Your task to perform on an android device: turn vacation reply on in the gmail app Image 0: 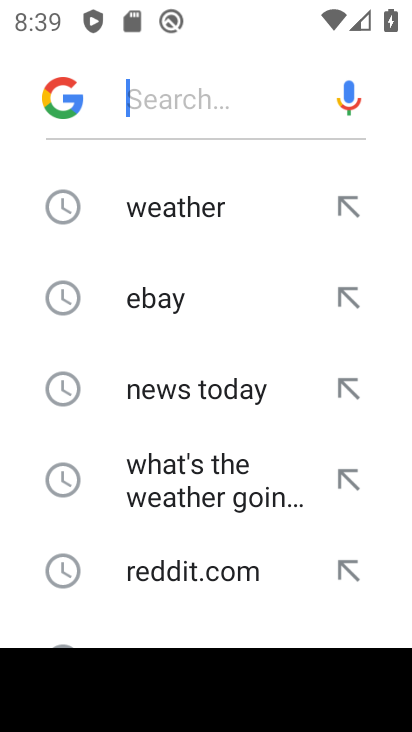
Step 0: press home button
Your task to perform on an android device: turn vacation reply on in the gmail app Image 1: 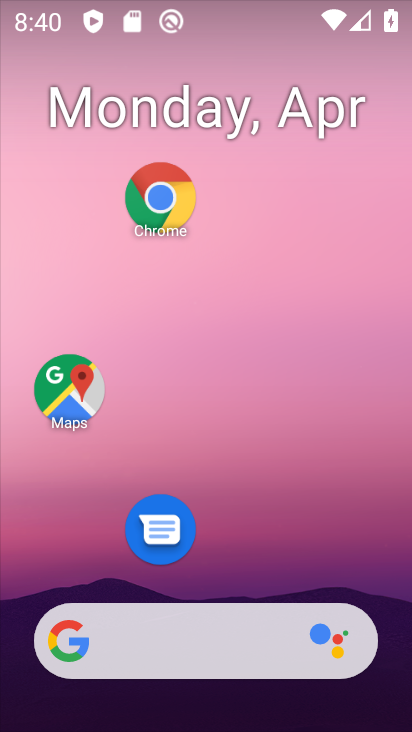
Step 1: drag from (209, 426) to (250, 130)
Your task to perform on an android device: turn vacation reply on in the gmail app Image 2: 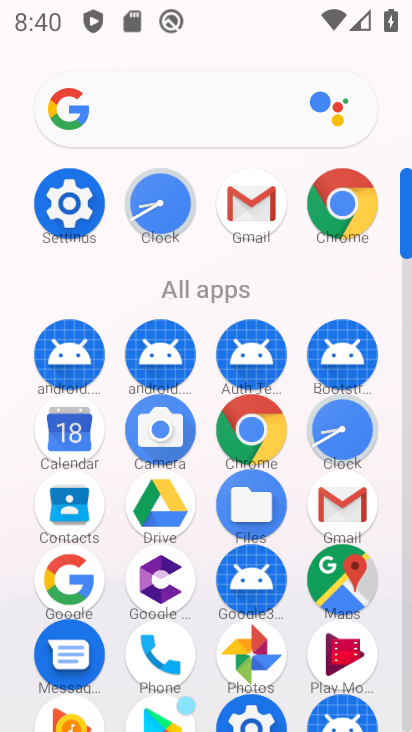
Step 2: click (252, 192)
Your task to perform on an android device: turn vacation reply on in the gmail app Image 3: 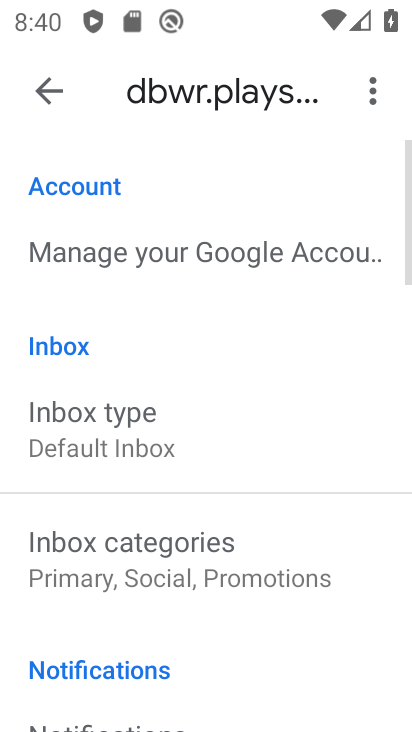
Step 3: drag from (157, 629) to (251, 91)
Your task to perform on an android device: turn vacation reply on in the gmail app Image 4: 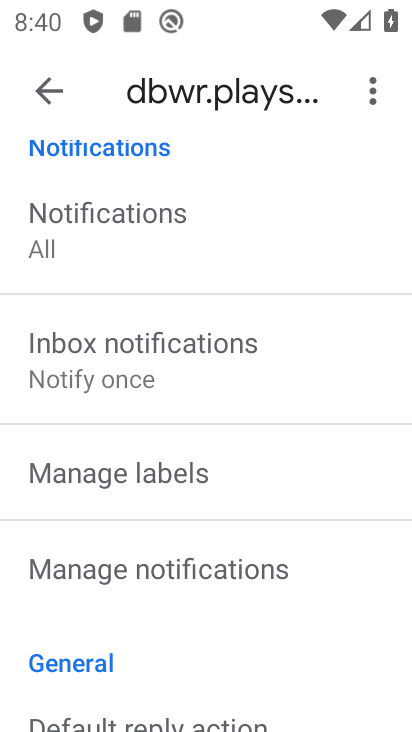
Step 4: drag from (199, 633) to (284, 120)
Your task to perform on an android device: turn vacation reply on in the gmail app Image 5: 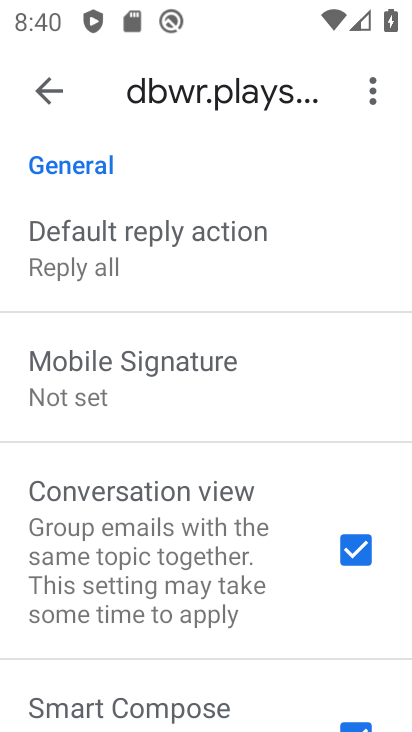
Step 5: drag from (166, 542) to (250, 75)
Your task to perform on an android device: turn vacation reply on in the gmail app Image 6: 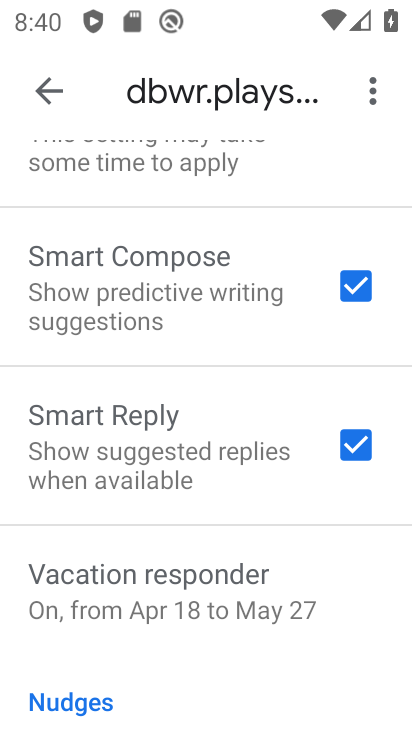
Step 6: click (160, 589)
Your task to perform on an android device: turn vacation reply on in the gmail app Image 7: 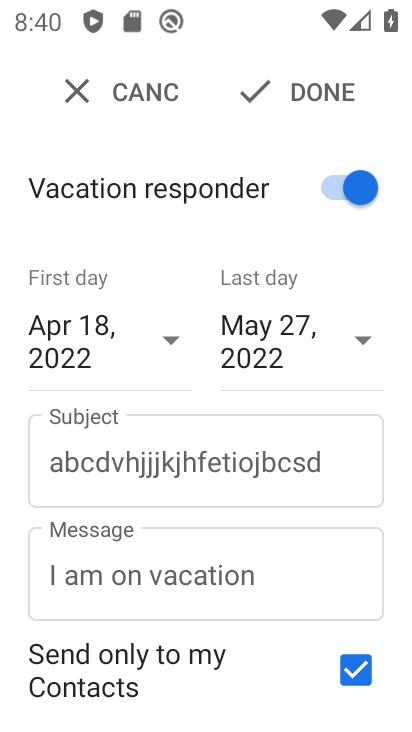
Step 7: task complete